Your task to perform on an android device: allow cookies in the chrome app Image 0: 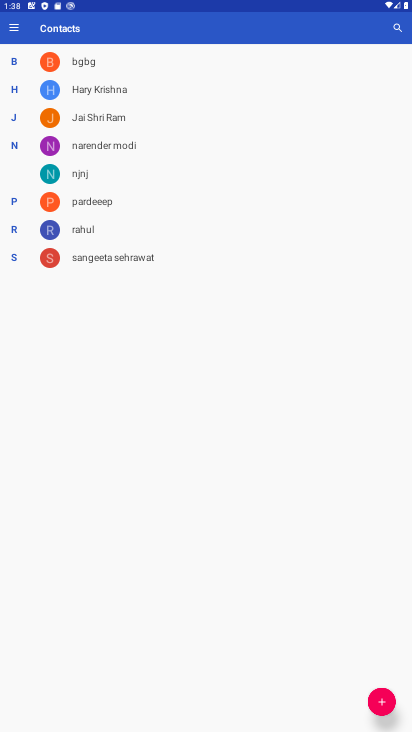
Step 0: press home button
Your task to perform on an android device: allow cookies in the chrome app Image 1: 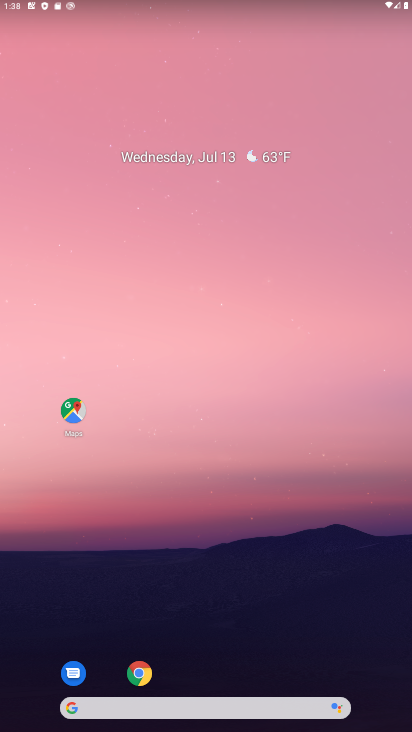
Step 1: drag from (263, 655) to (263, 88)
Your task to perform on an android device: allow cookies in the chrome app Image 2: 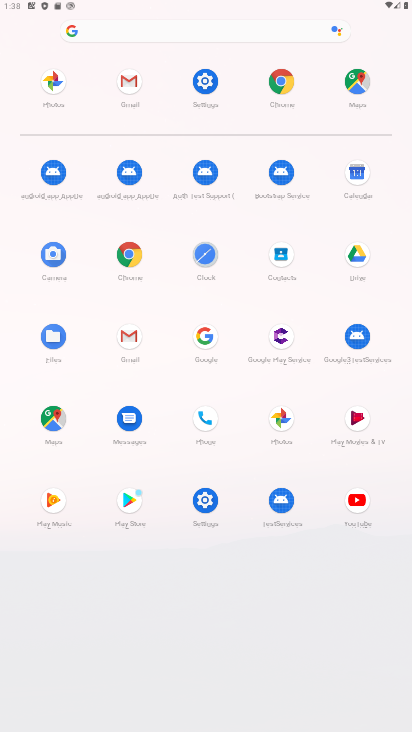
Step 2: click (281, 74)
Your task to perform on an android device: allow cookies in the chrome app Image 3: 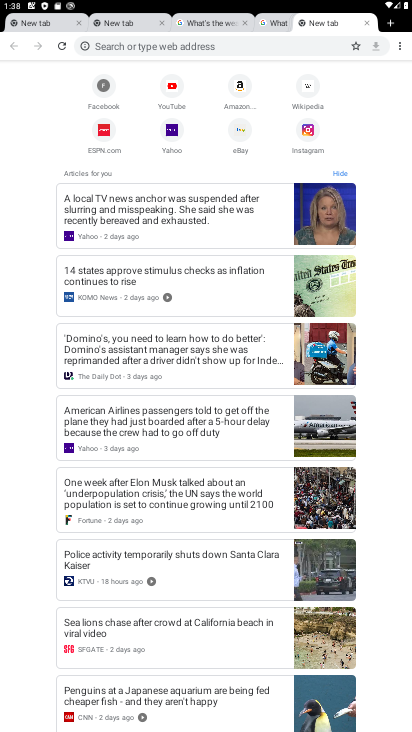
Step 3: click (400, 41)
Your task to perform on an android device: allow cookies in the chrome app Image 4: 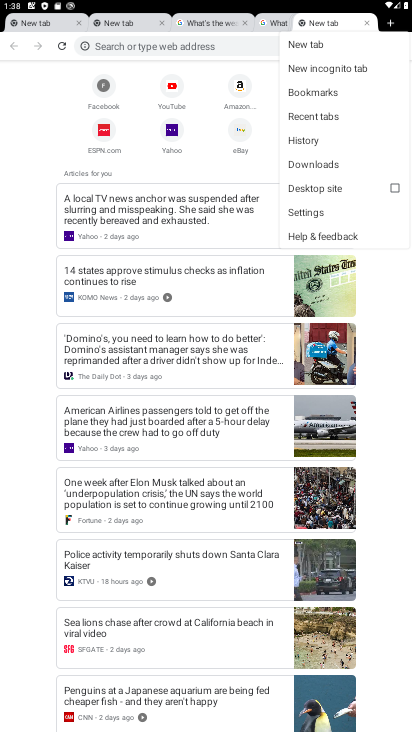
Step 4: click (310, 210)
Your task to perform on an android device: allow cookies in the chrome app Image 5: 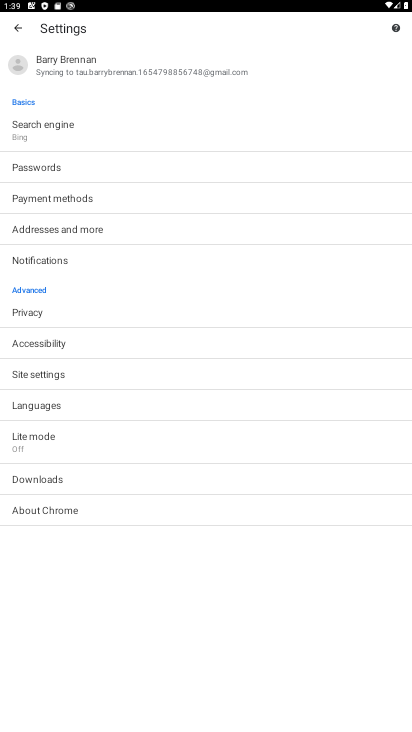
Step 5: click (48, 376)
Your task to perform on an android device: allow cookies in the chrome app Image 6: 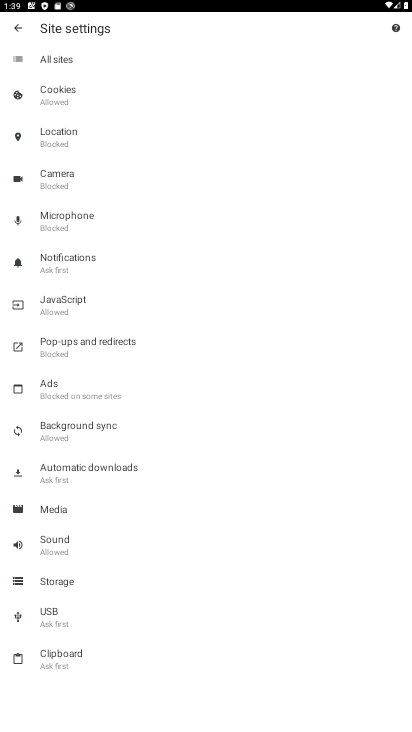
Step 6: click (50, 99)
Your task to perform on an android device: allow cookies in the chrome app Image 7: 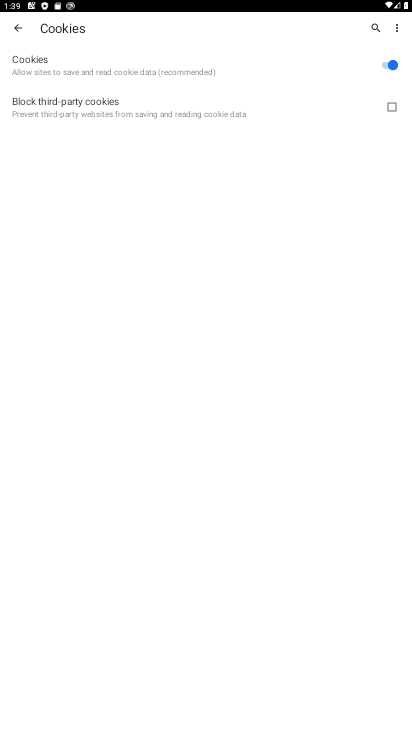
Step 7: task complete